Your task to perform on an android device: Open Google Maps and go to "Timeline" Image 0: 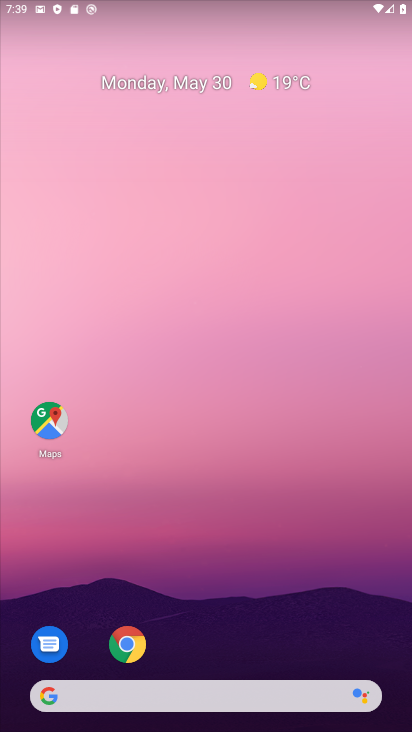
Step 0: drag from (269, 430) to (307, 152)
Your task to perform on an android device: Open Google Maps and go to "Timeline" Image 1: 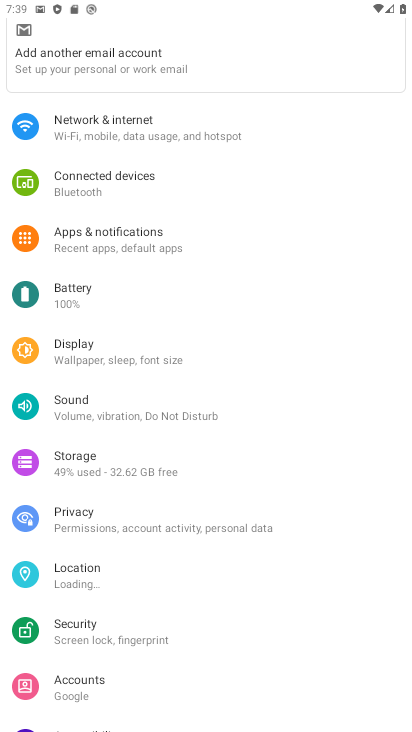
Step 1: drag from (8, 116) to (155, 539)
Your task to perform on an android device: Open Google Maps and go to "Timeline" Image 2: 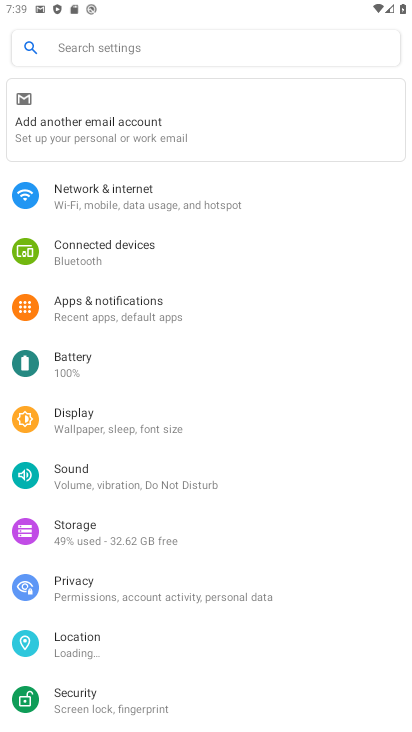
Step 2: drag from (148, 412) to (216, 144)
Your task to perform on an android device: Open Google Maps and go to "Timeline" Image 3: 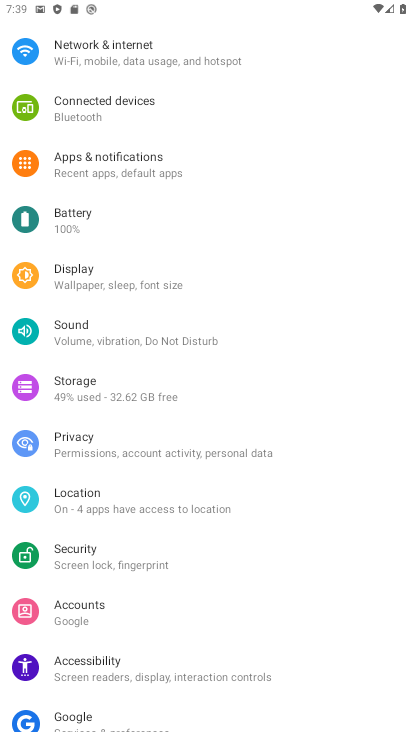
Step 3: drag from (169, 534) to (253, 208)
Your task to perform on an android device: Open Google Maps and go to "Timeline" Image 4: 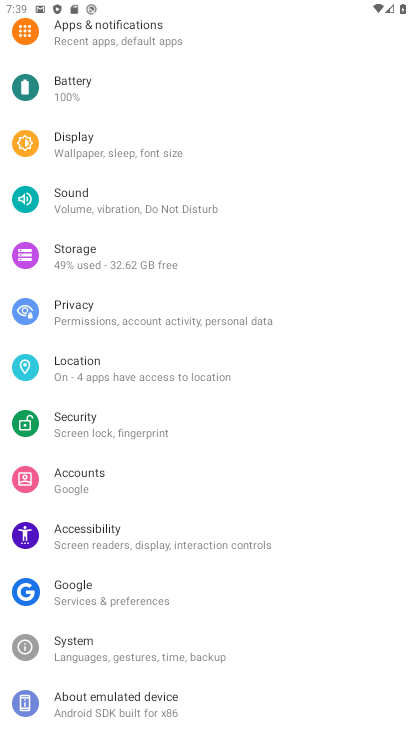
Step 4: drag from (224, 444) to (394, 672)
Your task to perform on an android device: Open Google Maps and go to "Timeline" Image 5: 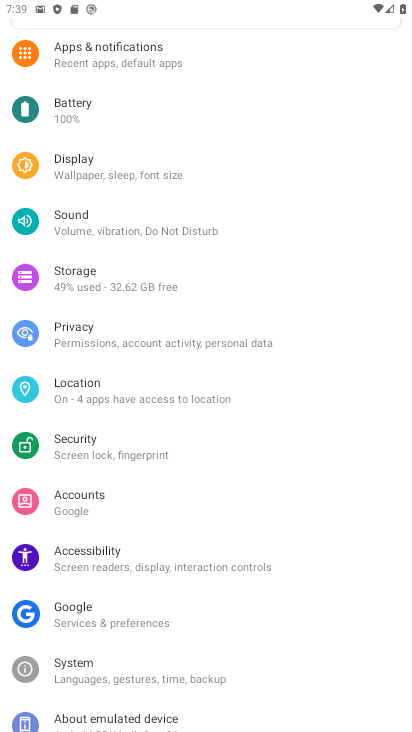
Step 5: press home button
Your task to perform on an android device: Open Google Maps and go to "Timeline" Image 6: 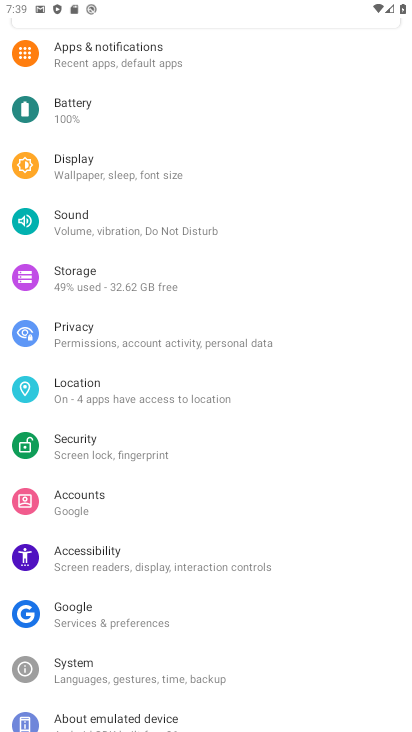
Step 6: click (400, 396)
Your task to perform on an android device: Open Google Maps and go to "Timeline" Image 7: 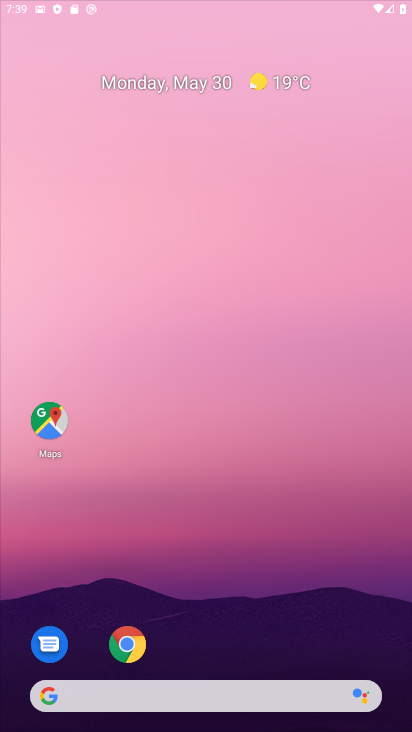
Step 7: drag from (138, 557) to (195, 117)
Your task to perform on an android device: Open Google Maps and go to "Timeline" Image 8: 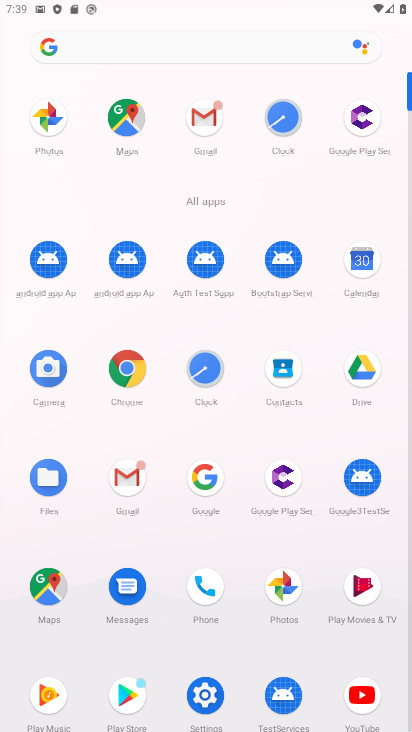
Step 8: click (47, 597)
Your task to perform on an android device: Open Google Maps and go to "Timeline" Image 9: 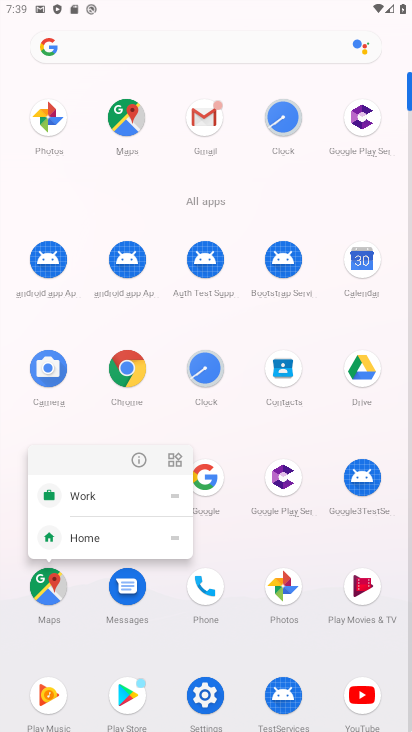
Step 9: click (139, 462)
Your task to perform on an android device: Open Google Maps and go to "Timeline" Image 10: 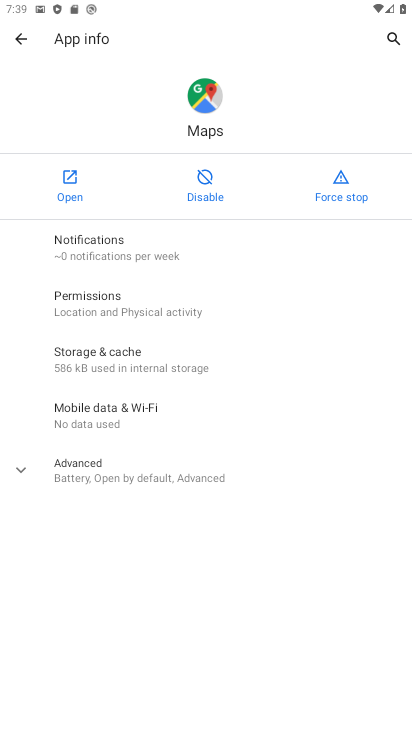
Step 10: click (80, 168)
Your task to perform on an android device: Open Google Maps and go to "Timeline" Image 11: 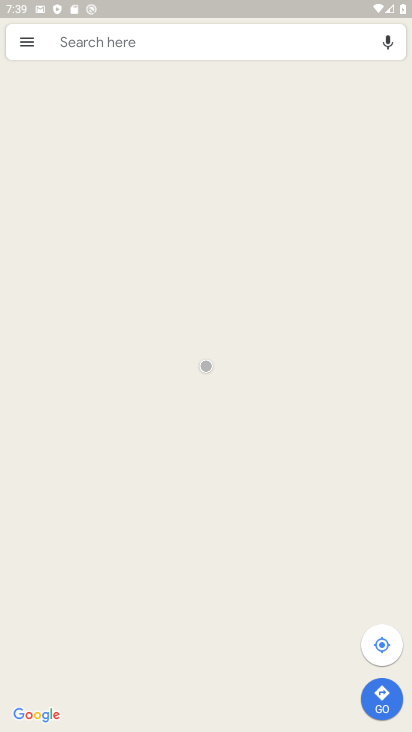
Step 11: drag from (224, 407) to (231, 230)
Your task to perform on an android device: Open Google Maps and go to "Timeline" Image 12: 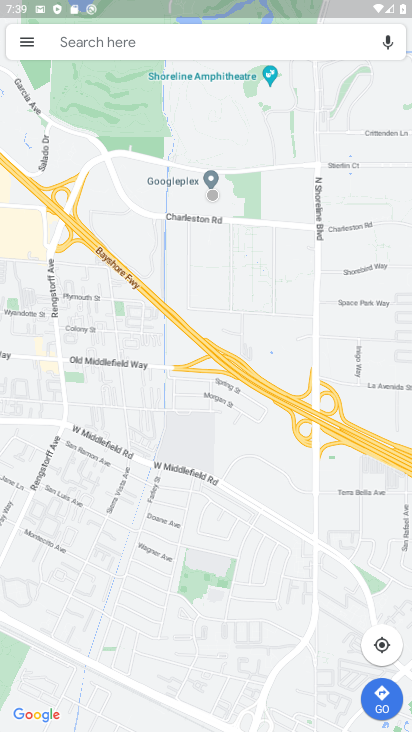
Step 12: drag from (181, 185) to (190, 532)
Your task to perform on an android device: Open Google Maps and go to "Timeline" Image 13: 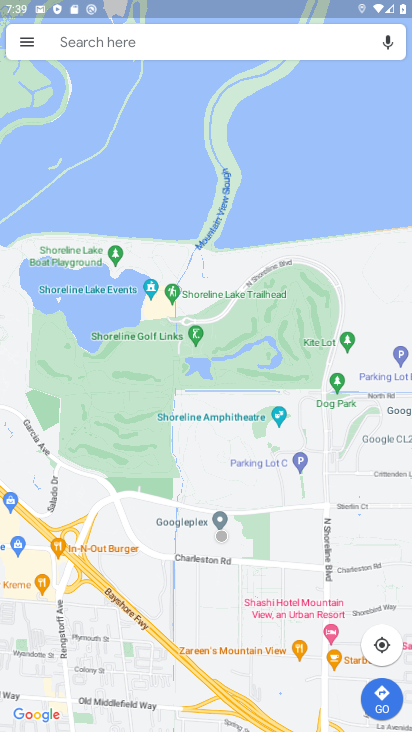
Step 13: click (30, 36)
Your task to perform on an android device: Open Google Maps and go to "Timeline" Image 14: 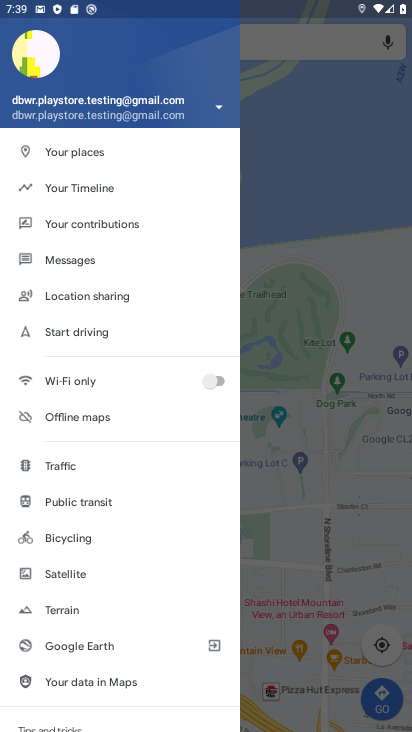
Step 14: click (89, 186)
Your task to perform on an android device: Open Google Maps and go to "Timeline" Image 15: 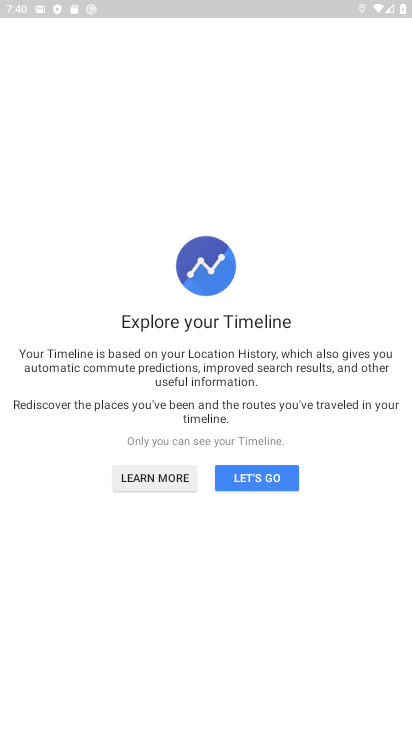
Step 15: click (236, 484)
Your task to perform on an android device: Open Google Maps and go to "Timeline" Image 16: 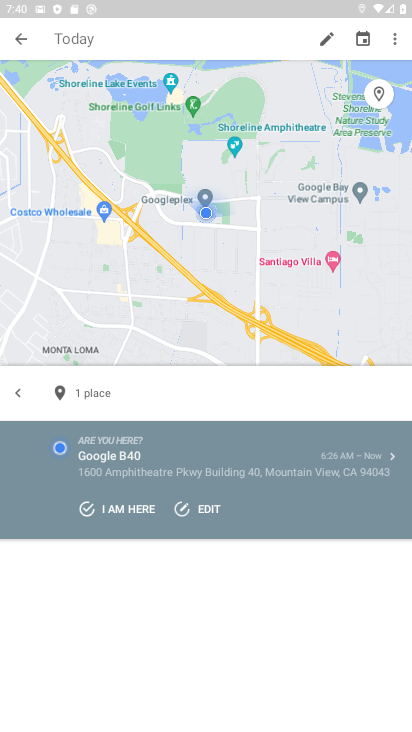
Step 16: task complete